Your task to perform on an android device: add a label to a message in the gmail app Image 0: 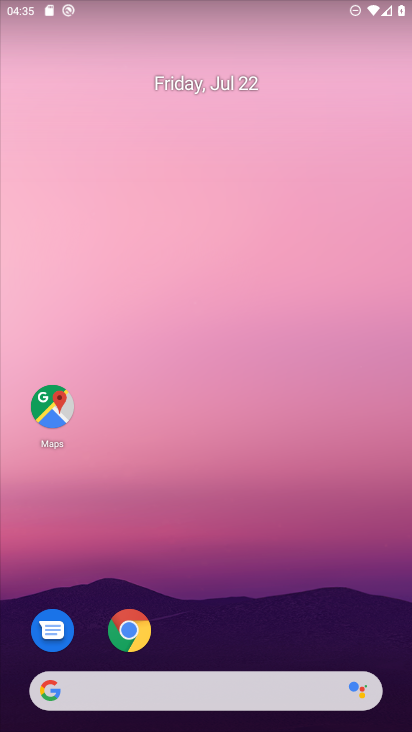
Step 0: drag from (207, 615) to (219, 215)
Your task to perform on an android device: add a label to a message in the gmail app Image 1: 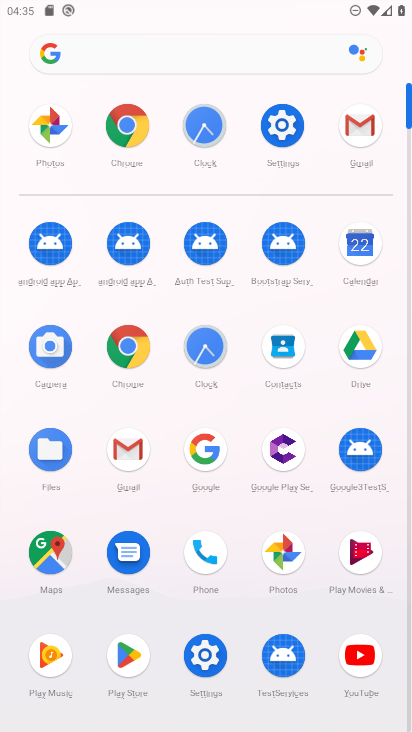
Step 1: click (137, 457)
Your task to perform on an android device: add a label to a message in the gmail app Image 2: 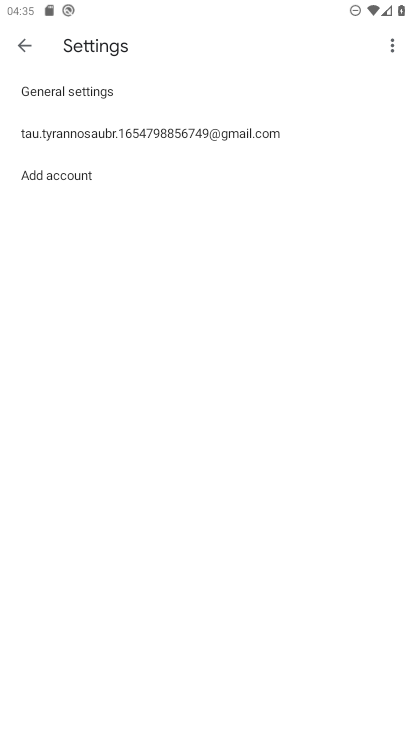
Step 2: click (25, 46)
Your task to perform on an android device: add a label to a message in the gmail app Image 3: 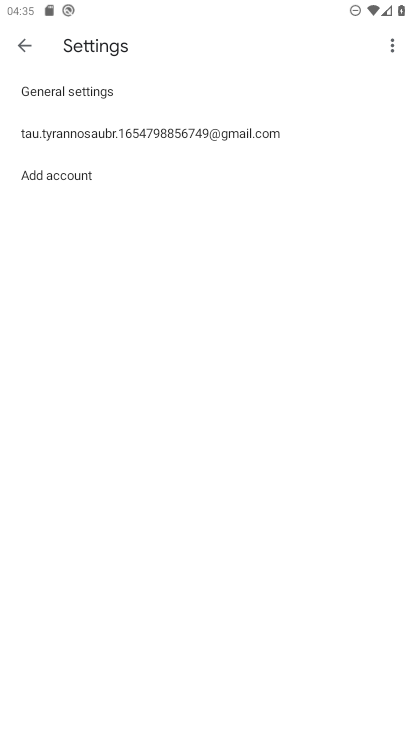
Step 3: click (23, 47)
Your task to perform on an android device: add a label to a message in the gmail app Image 4: 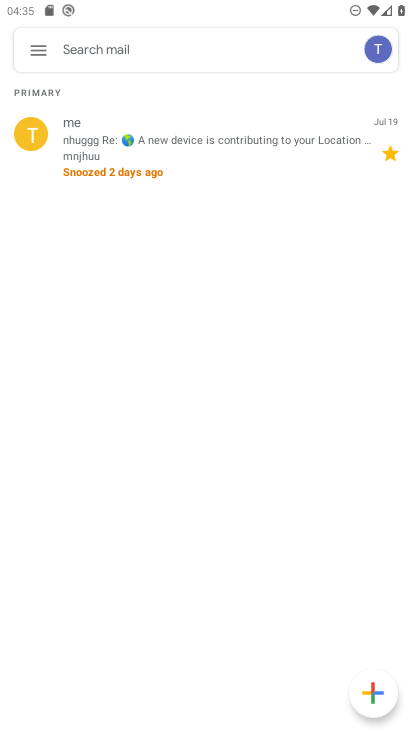
Step 4: click (32, 138)
Your task to perform on an android device: add a label to a message in the gmail app Image 5: 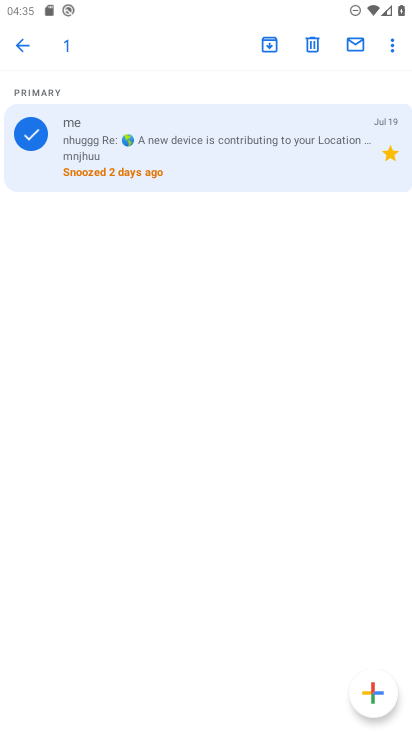
Step 5: click (393, 49)
Your task to perform on an android device: add a label to a message in the gmail app Image 6: 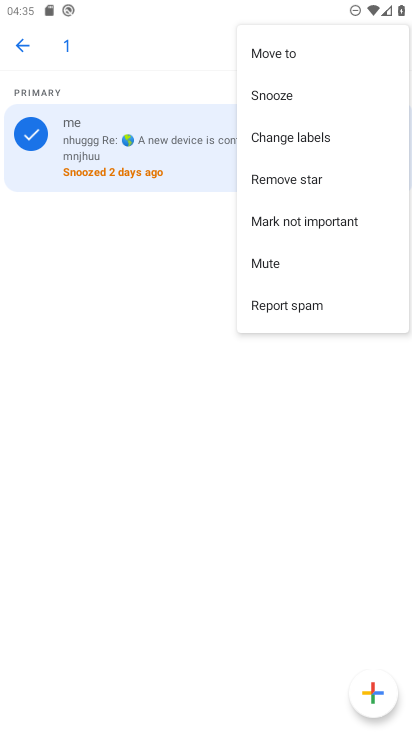
Step 6: click (306, 139)
Your task to perform on an android device: add a label to a message in the gmail app Image 7: 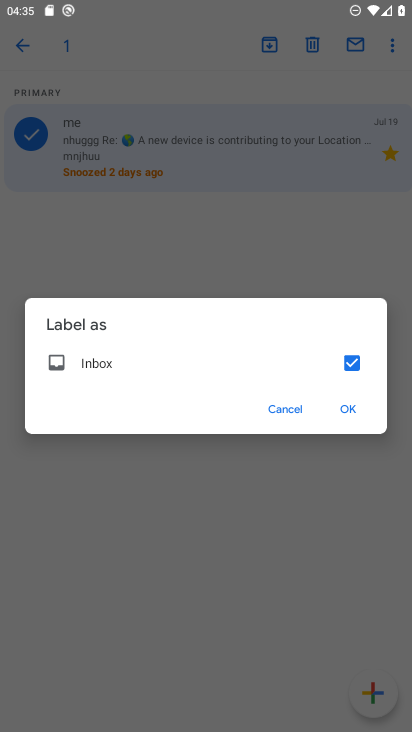
Step 7: click (350, 360)
Your task to perform on an android device: add a label to a message in the gmail app Image 8: 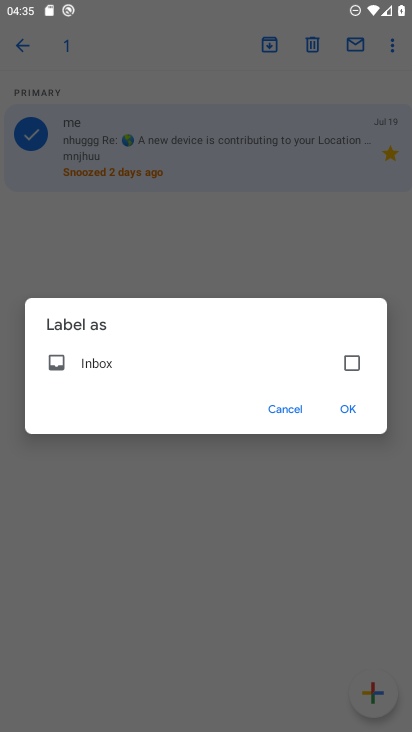
Step 8: click (346, 408)
Your task to perform on an android device: add a label to a message in the gmail app Image 9: 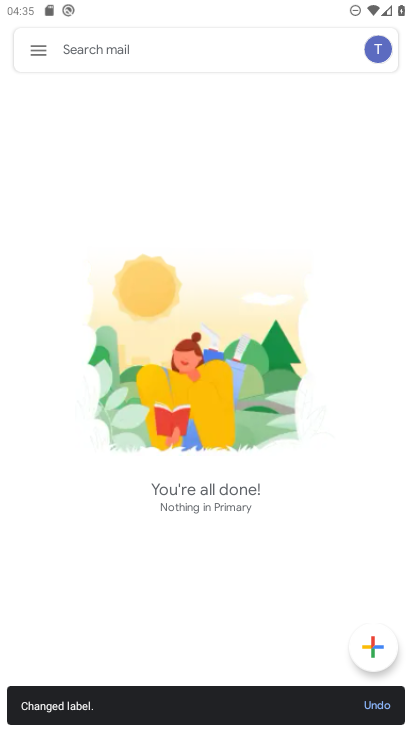
Step 9: task complete